Your task to perform on an android device: star an email in the gmail app Image 0: 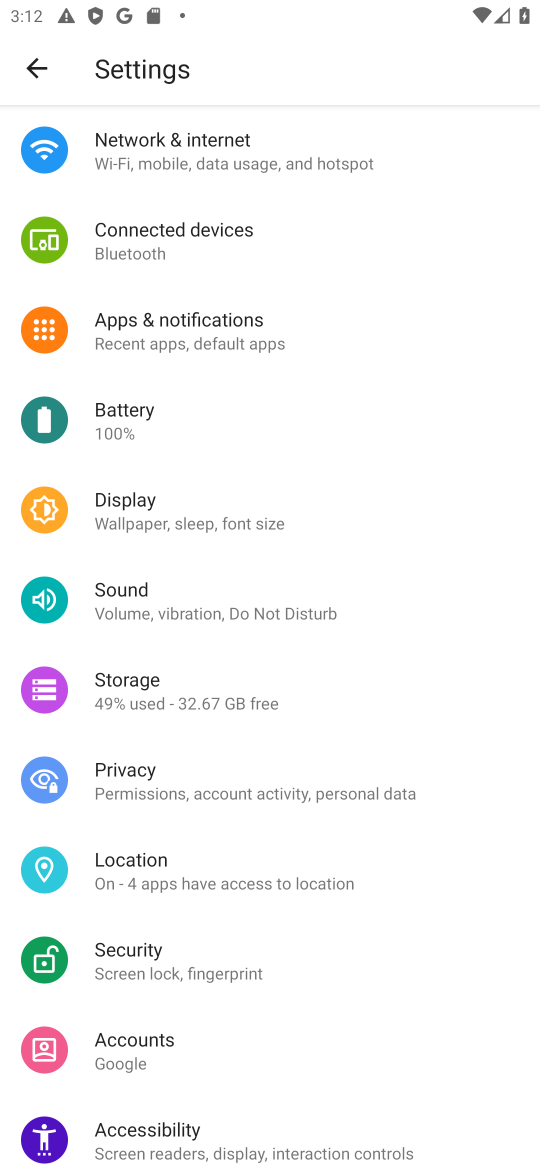
Step 0: press home button
Your task to perform on an android device: star an email in the gmail app Image 1: 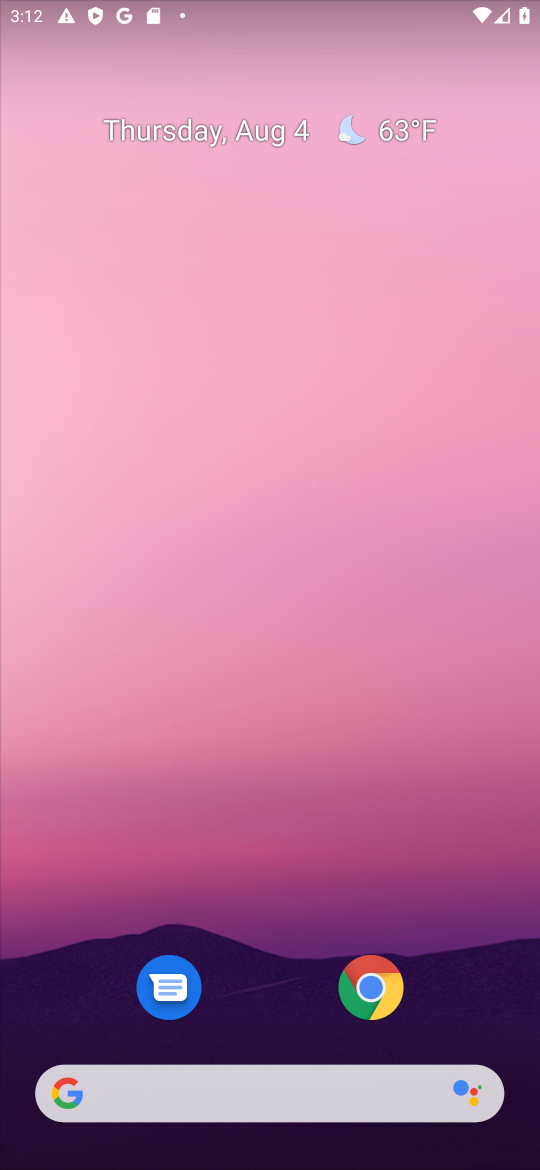
Step 1: drag from (261, 548) to (301, 246)
Your task to perform on an android device: star an email in the gmail app Image 2: 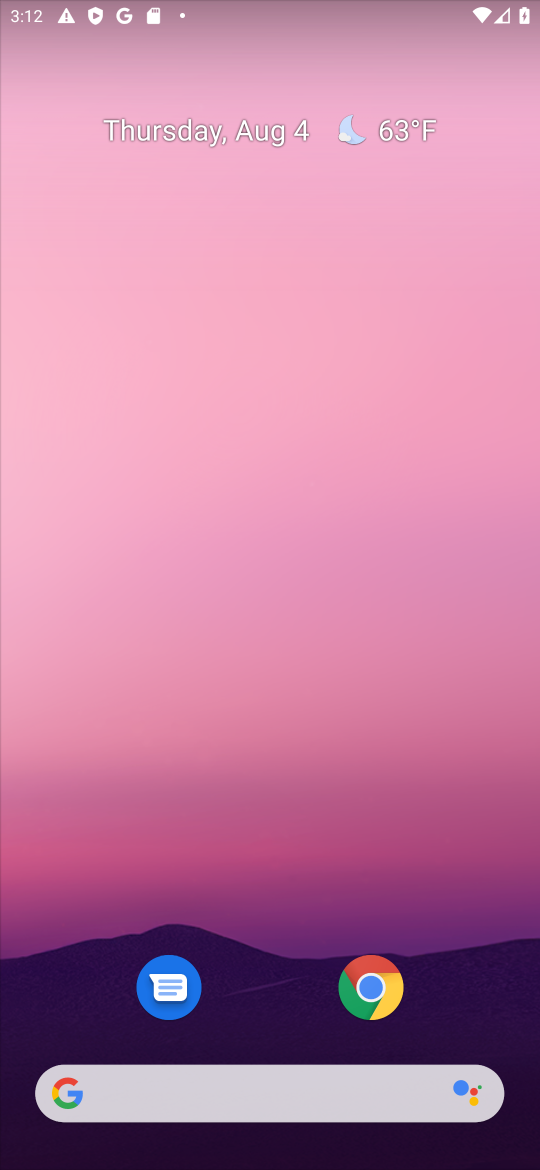
Step 2: drag from (245, 975) to (219, 117)
Your task to perform on an android device: star an email in the gmail app Image 3: 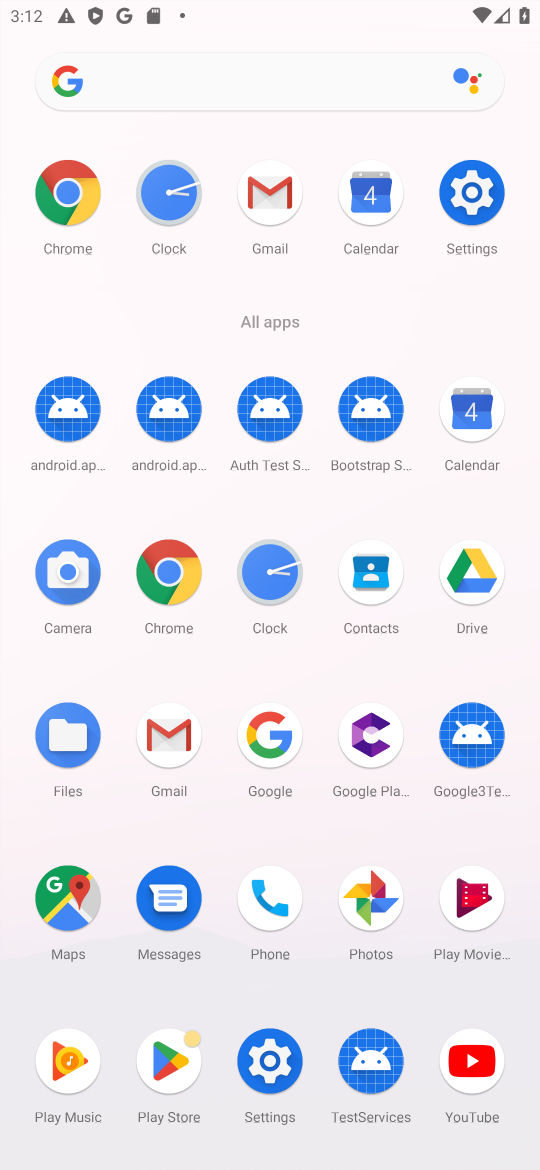
Step 3: click (268, 195)
Your task to perform on an android device: star an email in the gmail app Image 4: 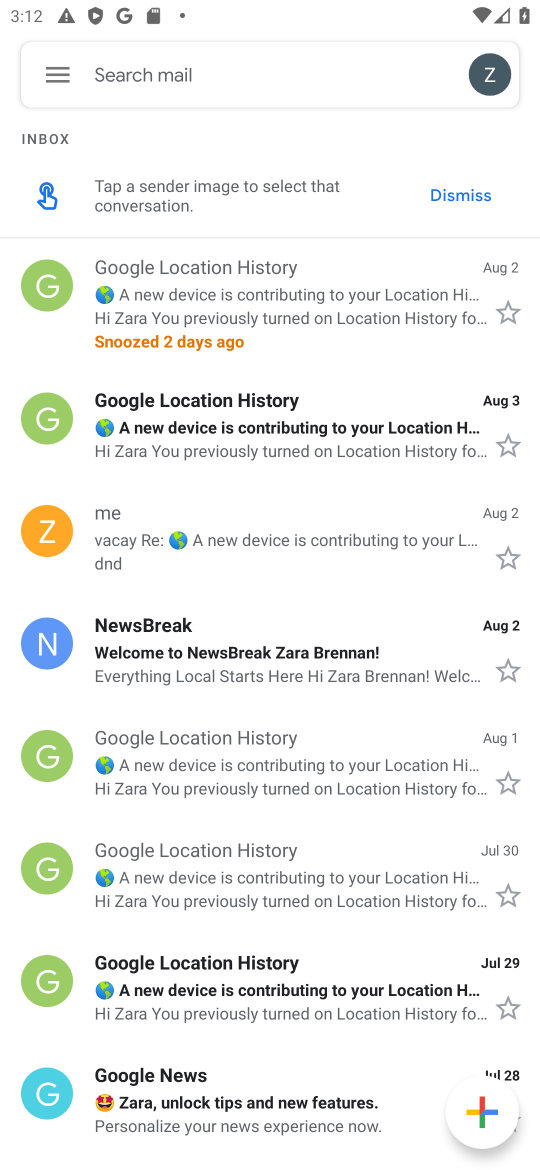
Step 4: click (510, 450)
Your task to perform on an android device: star an email in the gmail app Image 5: 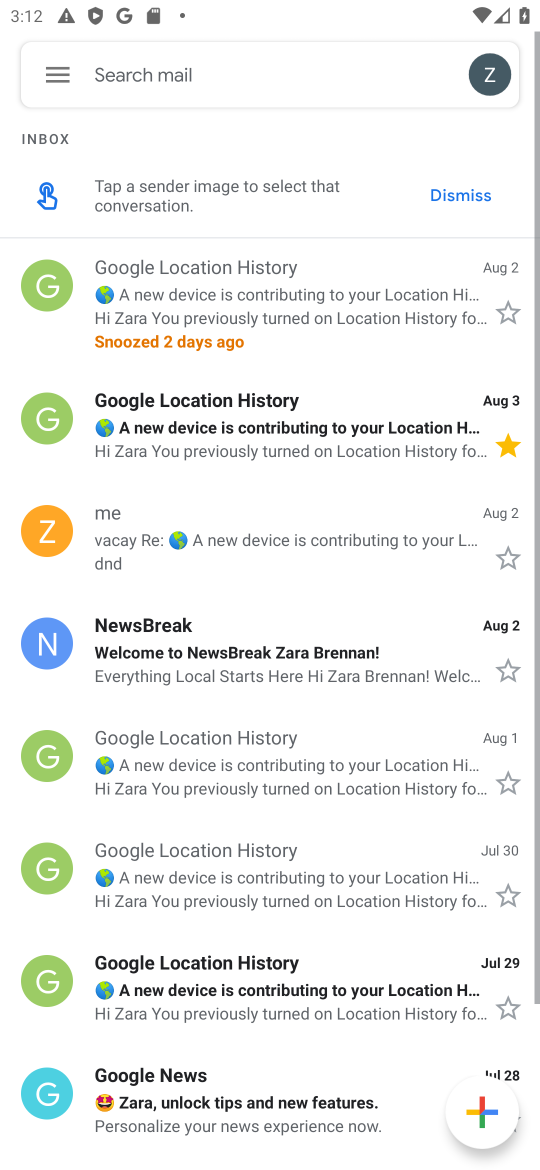
Step 5: task complete